Your task to perform on an android device: Open Youtube and go to the subscriptions tab Image 0: 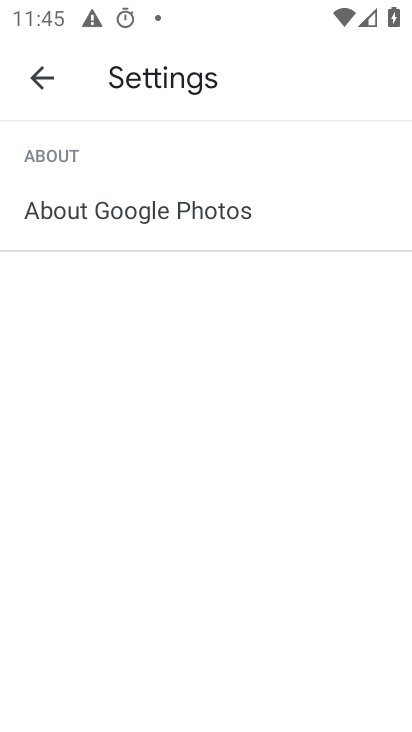
Step 0: press home button
Your task to perform on an android device: Open Youtube and go to the subscriptions tab Image 1: 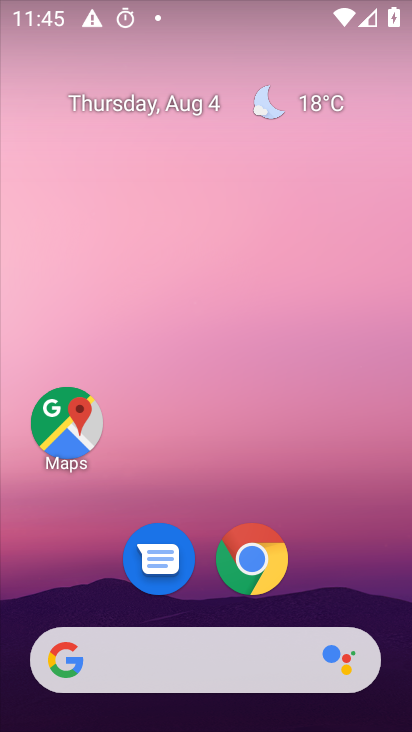
Step 1: drag from (13, 696) to (202, 140)
Your task to perform on an android device: Open Youtube and go to the subscriptions tab Image 2: 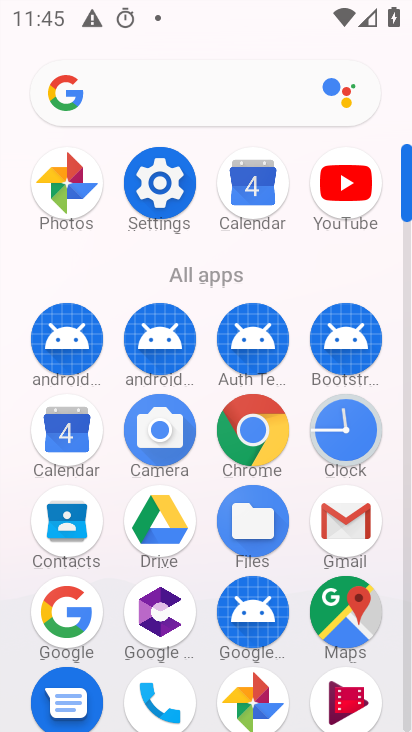
Step 2: click (328, 183)
Your task to perform on an android device: Open Youtube and go to the subscriptions tab Image 3: 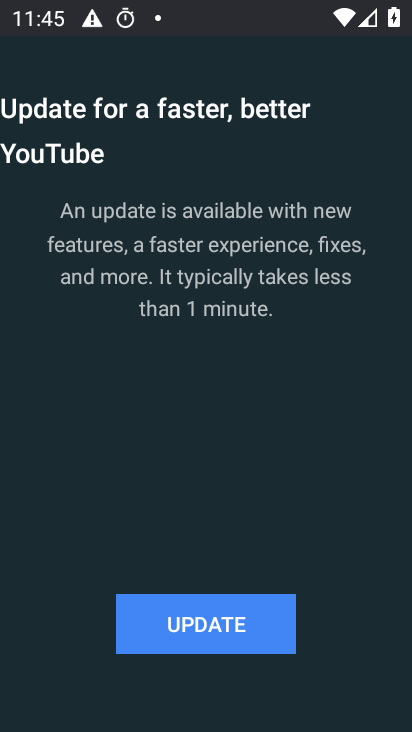
Step 3: click (190, 631)
Your task to perform on an android device: Open Youtube and go to the subscriptions tab Image 4: 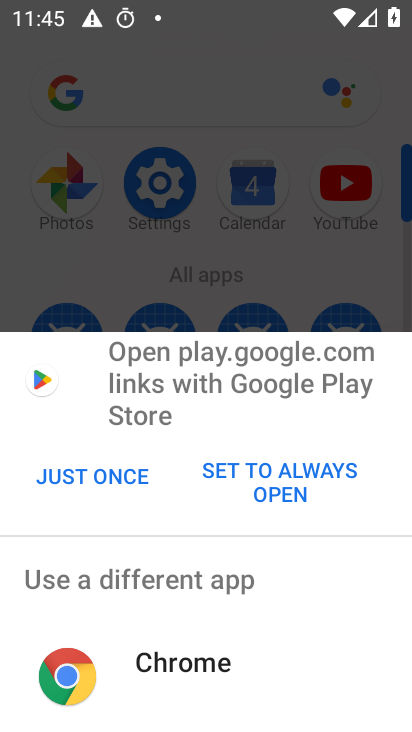
Step 4: click (141, 483)
Your task to perform on an android device: Open Youtube and go to the subscriptions tab Image 5: 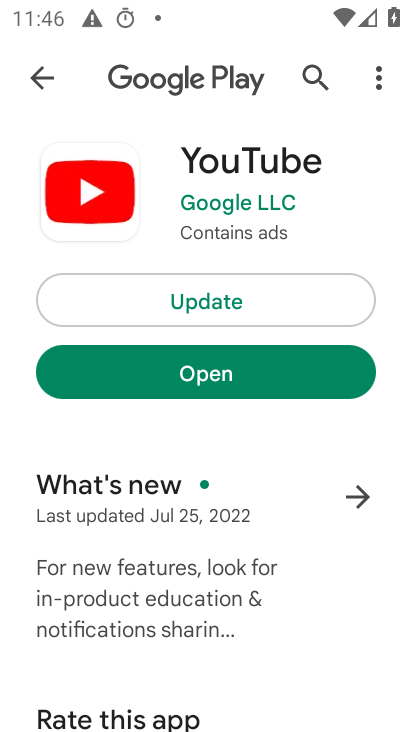
Step 5: click (167, 360)
Your task to perform on an android device: Open Youtube and go to the subscriptions tab Image 6: 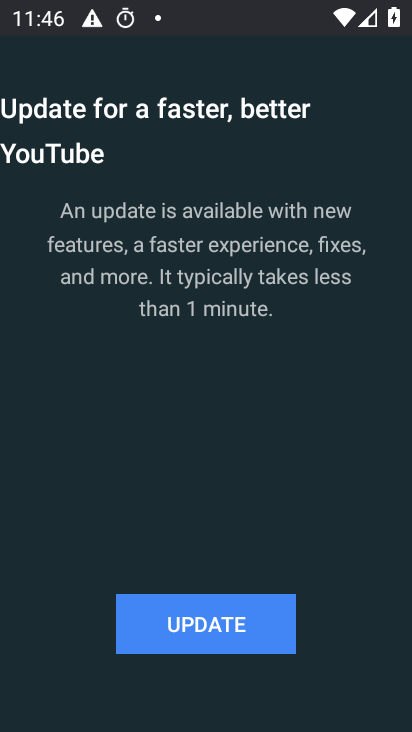
Step 6: task complete